Your task to perform on an android device: Go to Google Image 0: 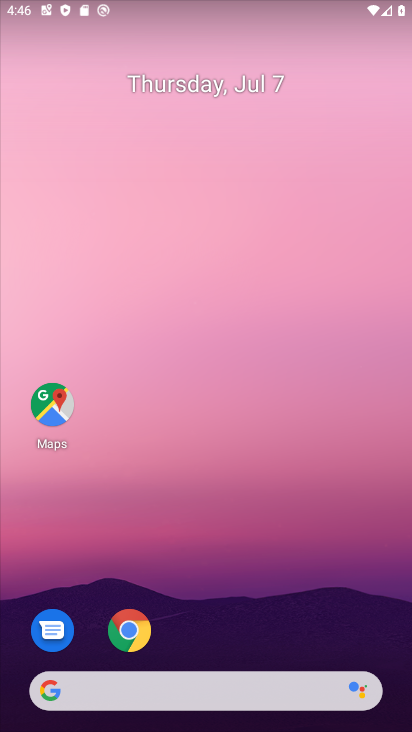
Step 0: click (109, 679)
Your task to perform on an android device: Go to Google Image 1: 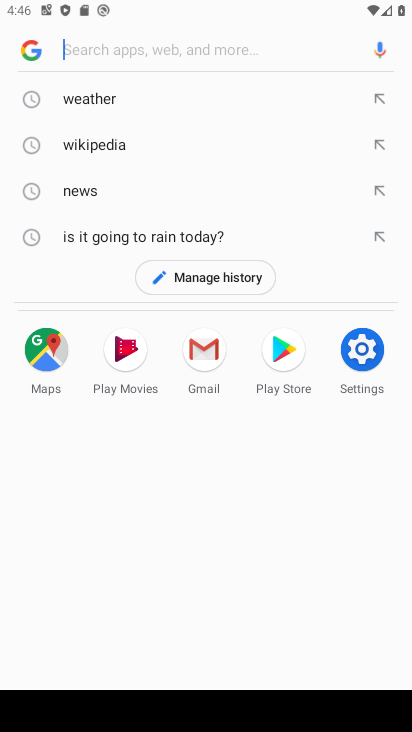
Step 1: task complete